Your task to perform on an android device: uninstall "HBO Max: Stream TV & Movies" Image 0: 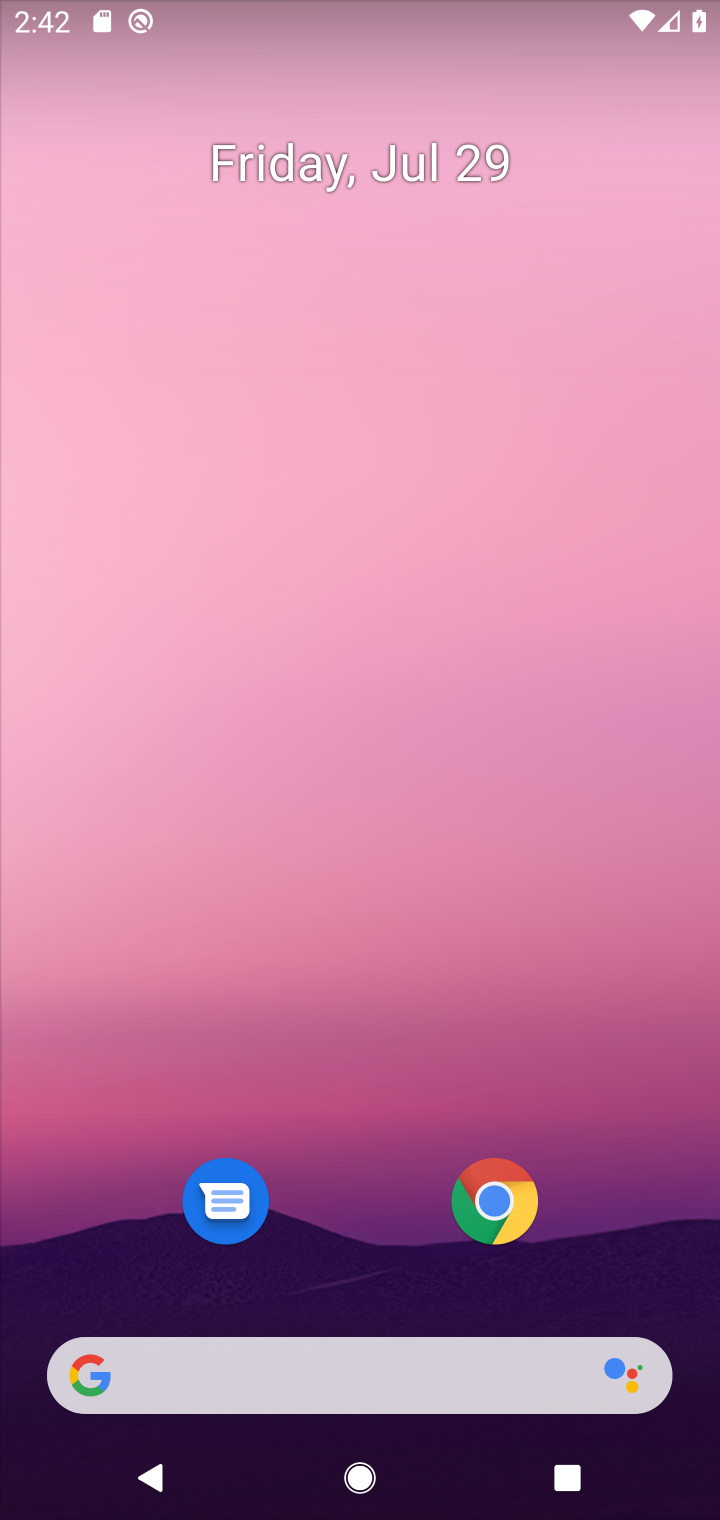
Step 0: press home button
Your task to perform on an android device: uninstall "HBO Max: Stream TV & Movies" Image 1: 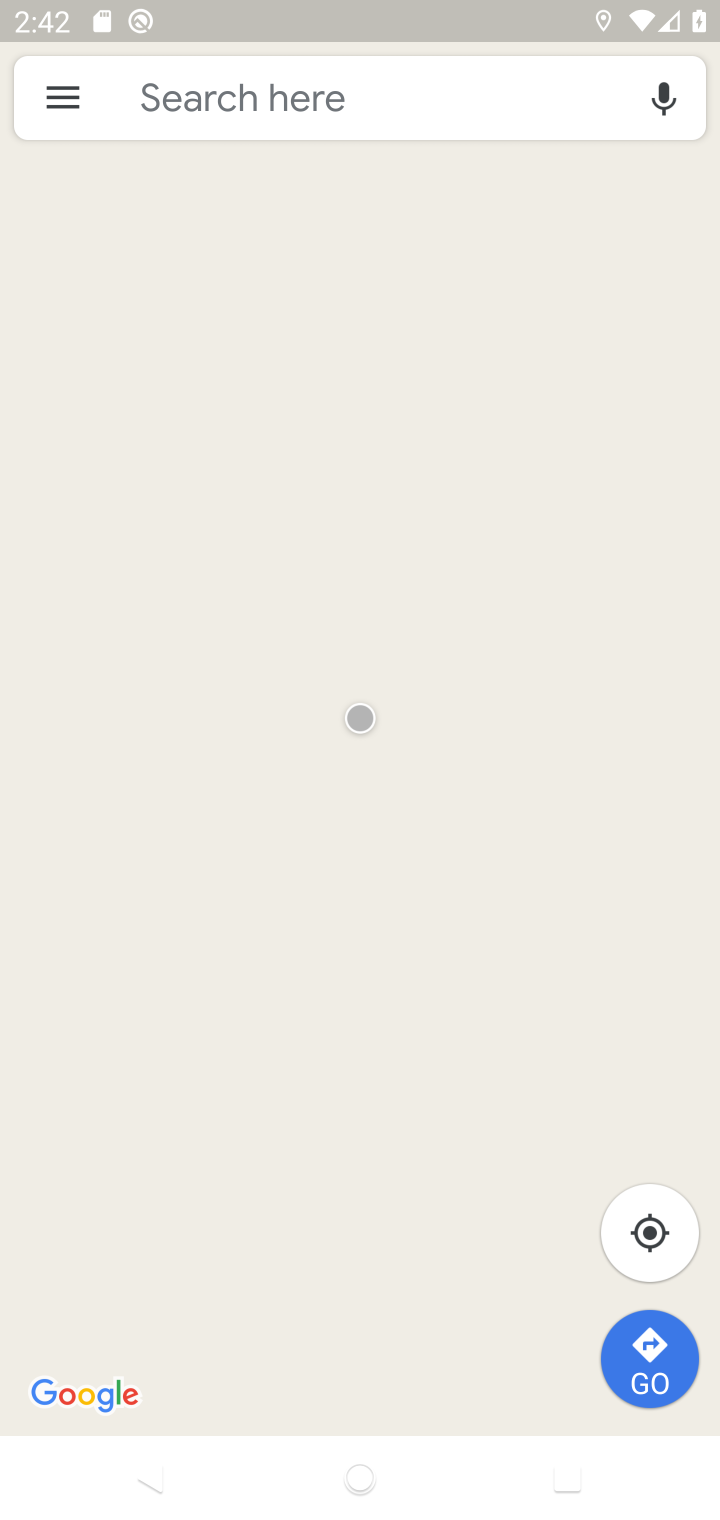
Step 1: press home button
Your task to perform on an android device: uninstall "HBO Max: Stream TV & Movies" Image 2: 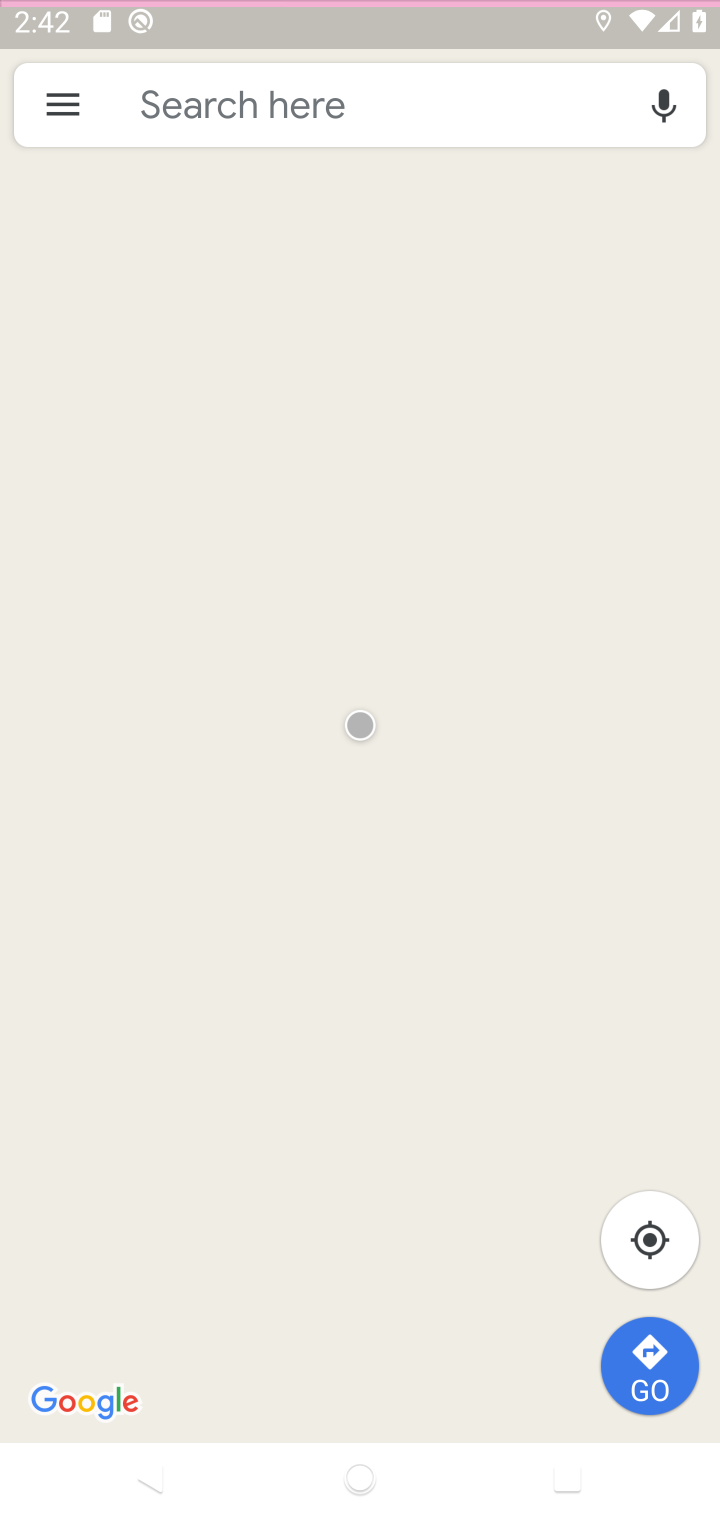
Step 2: click (615, 420)
Your task to perform on an android device: uninstall "HBO Max: Stream TV & Movies" Image 3: 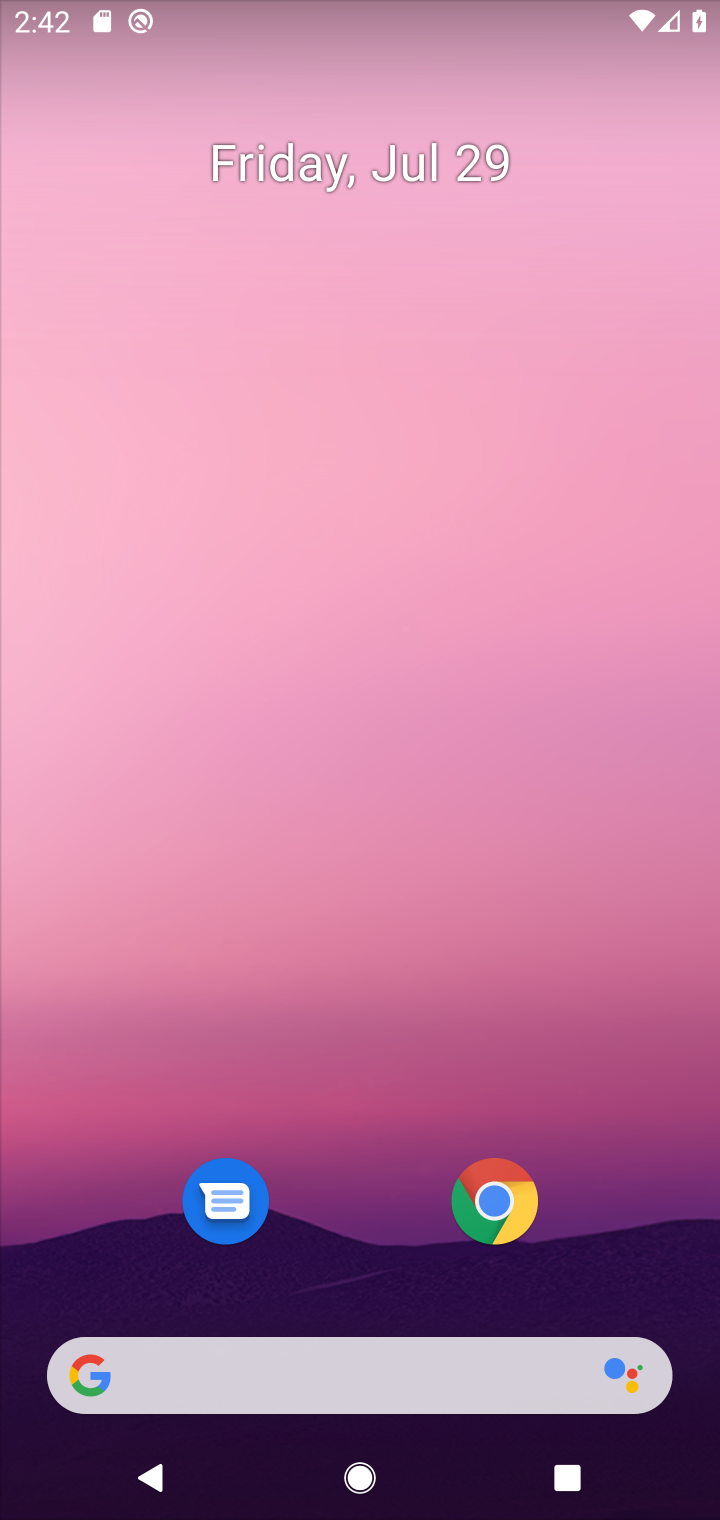
Step 3: press home button
Your task to perform on an android device: uninstall "HBO Max: Stream TV & Movies" Image 4: 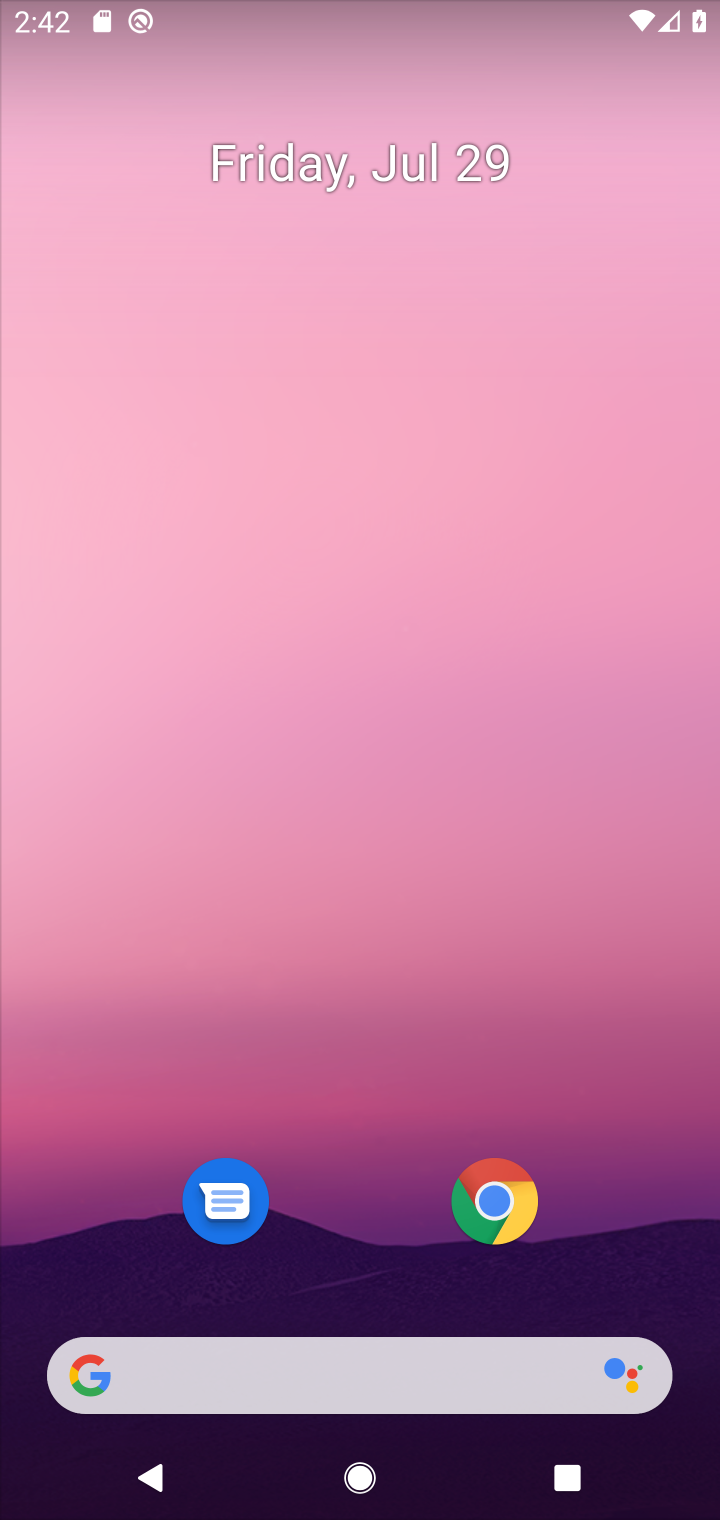
Step 4: drag from (682, 1195) to (611, 10)
Your task to perform on an android device: uninstall "HBO Max: Stream TV & Movies" Image 5: 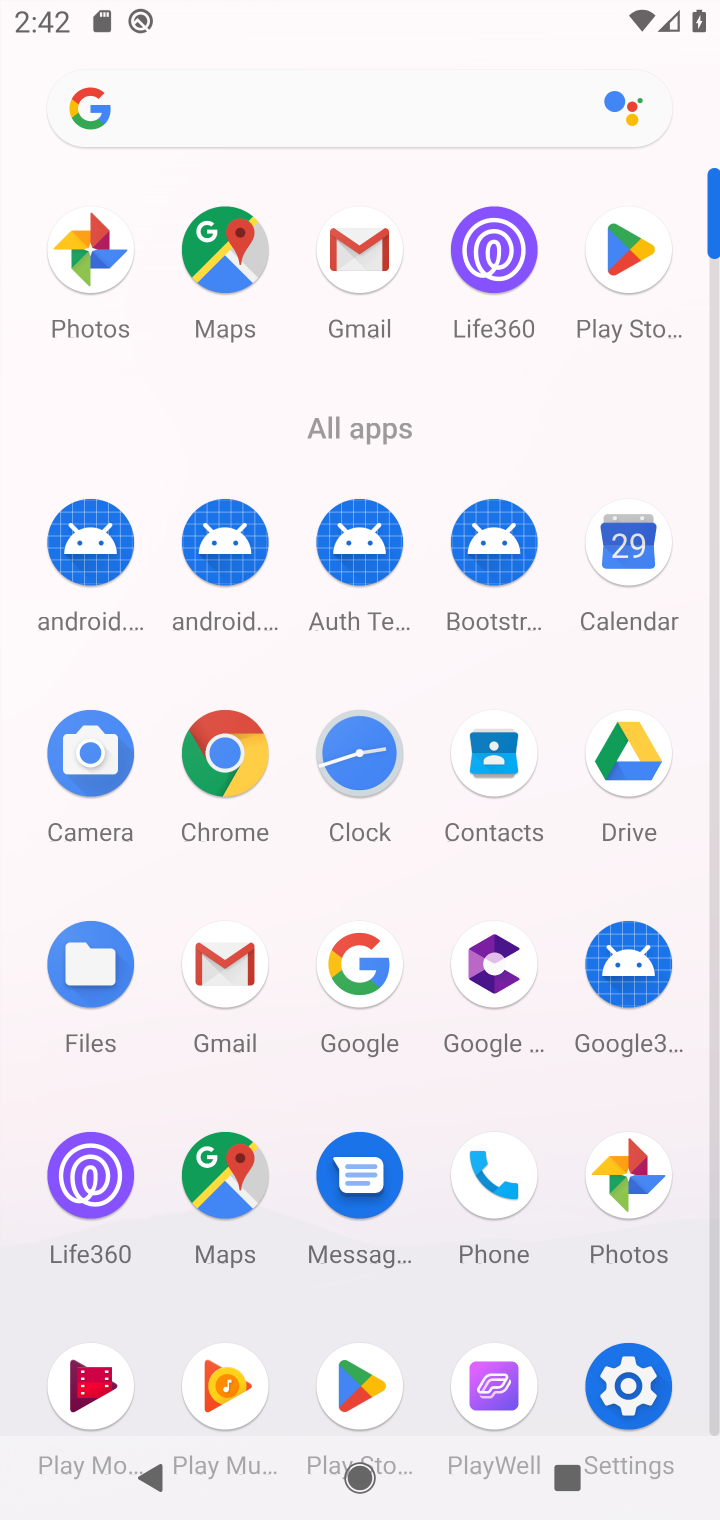
Step 5: click (662, 247)
Your task to perform on an android device: uninstall "HBO Max: Stream TV & Movies" Image 6: 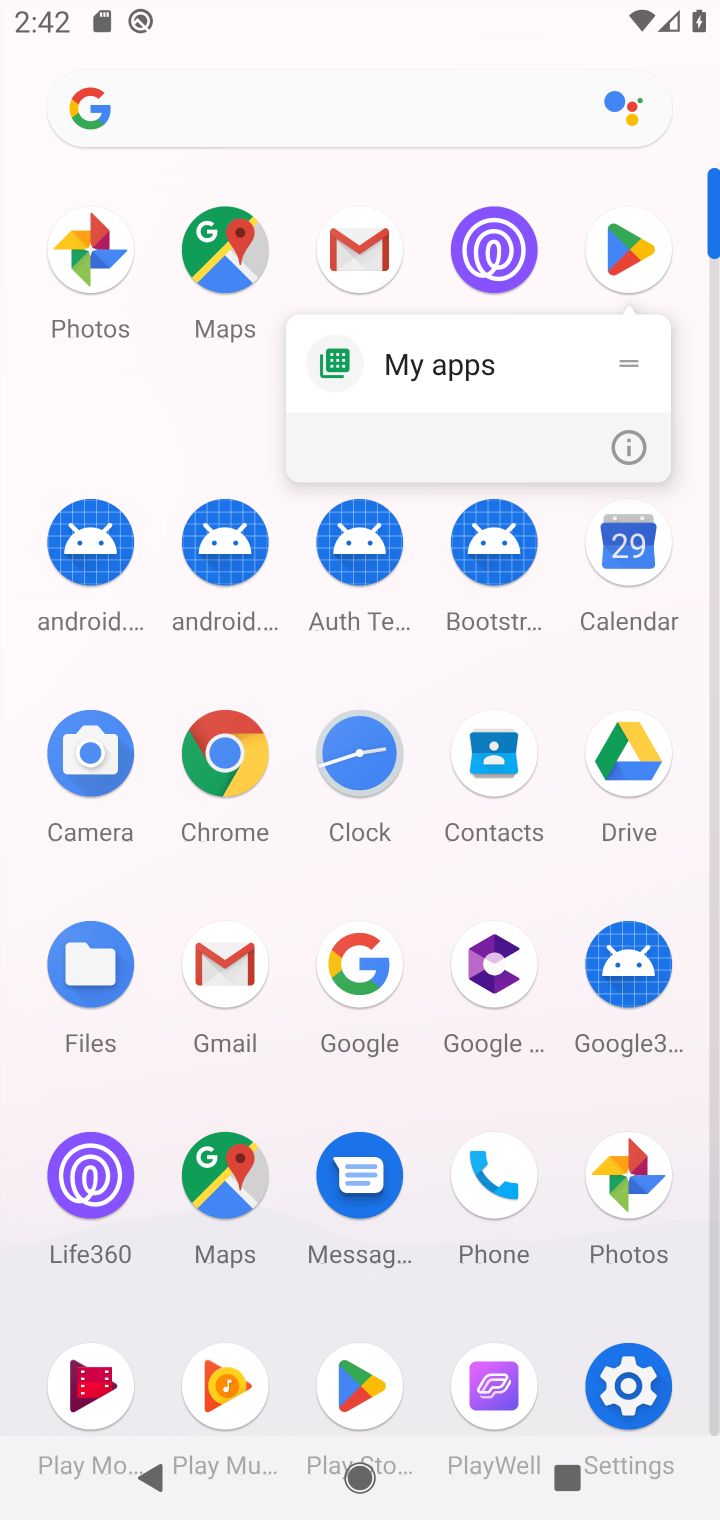
Step 6: click (630, 256)
Your task to perform on an android device: uninstall "HBO Max: Stream TV & Movies" Image 7: 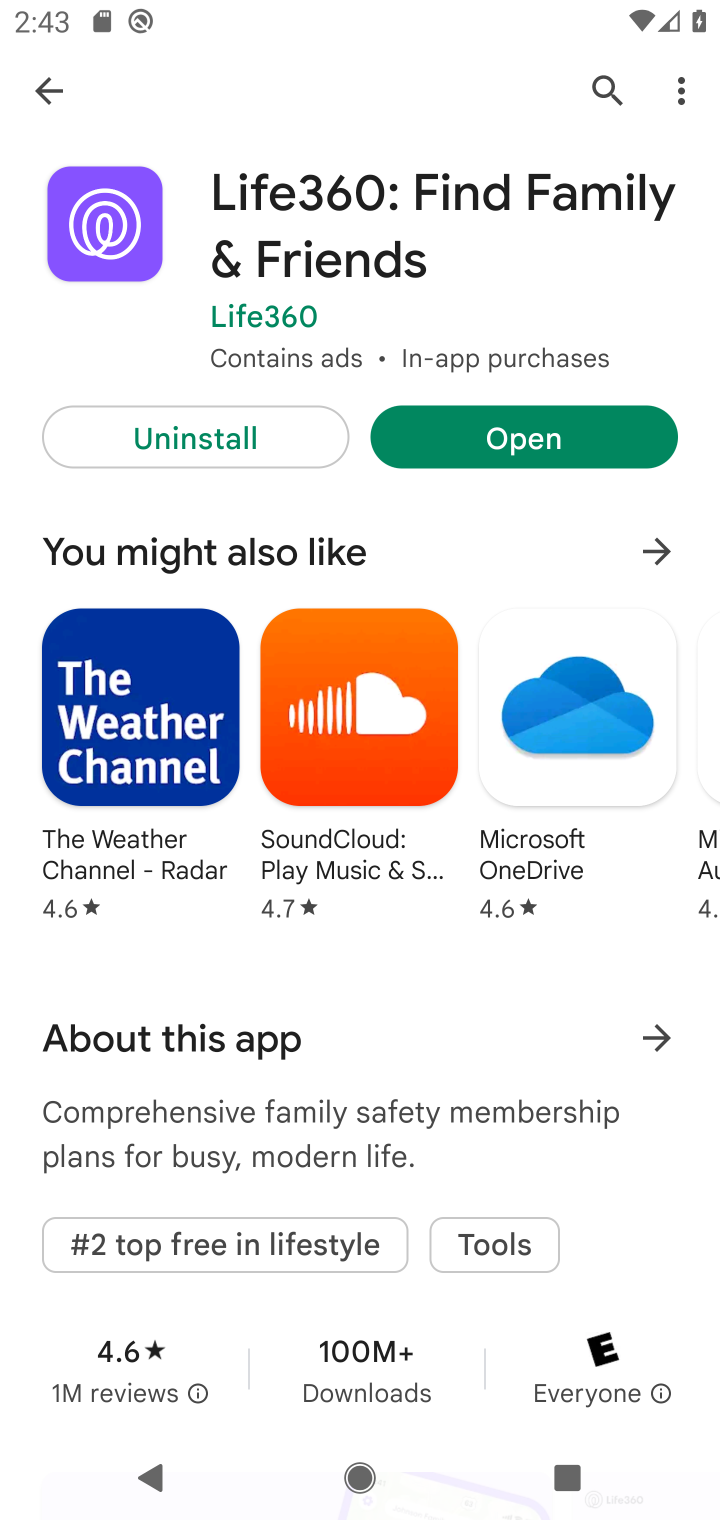
Step 7: click (600, 93)
Your task to perform on an android device: uninstall "HBO Max: Stream TV & Movies" Image 8: 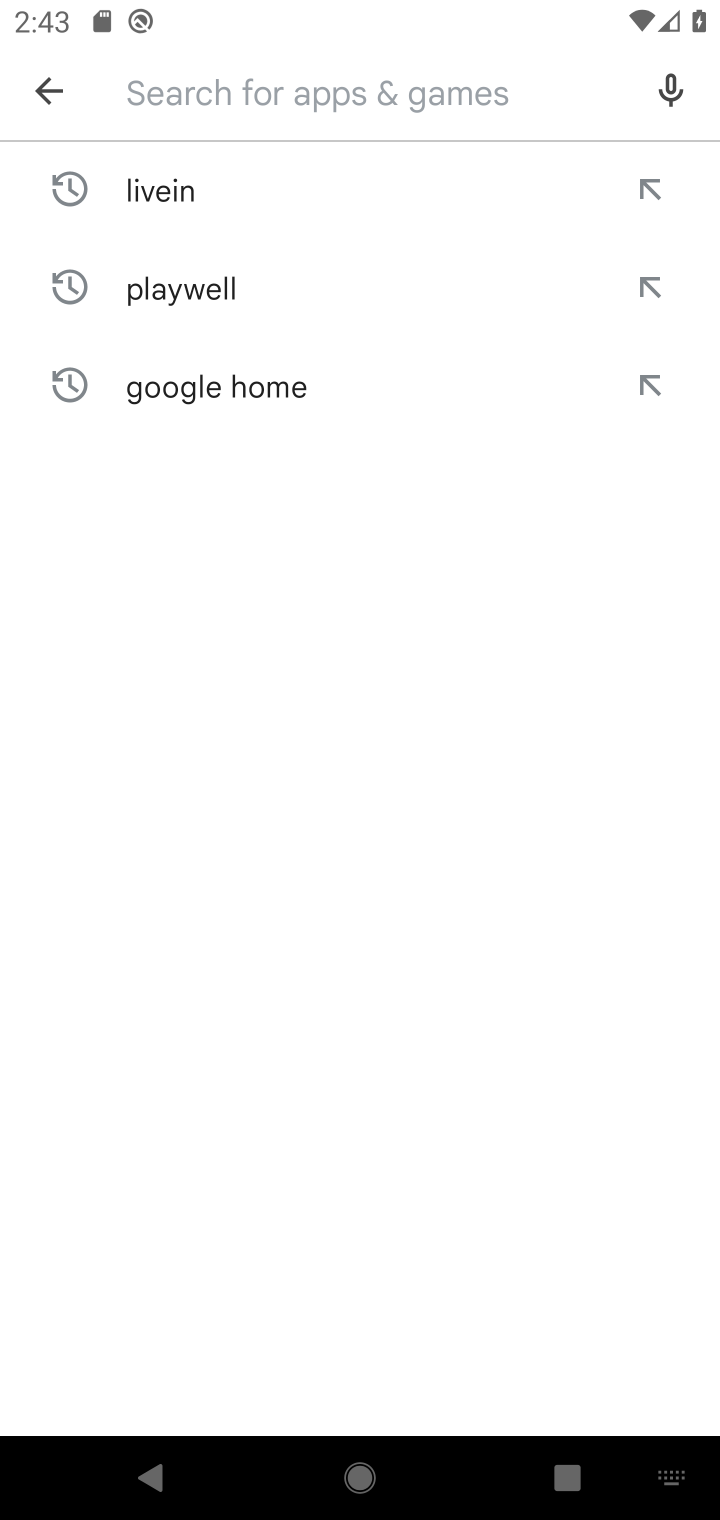
Step 8: click (398, 79)
Your task to perform on an android device: uninstall "HBO Max: Stream TV & Movies" Image 9: 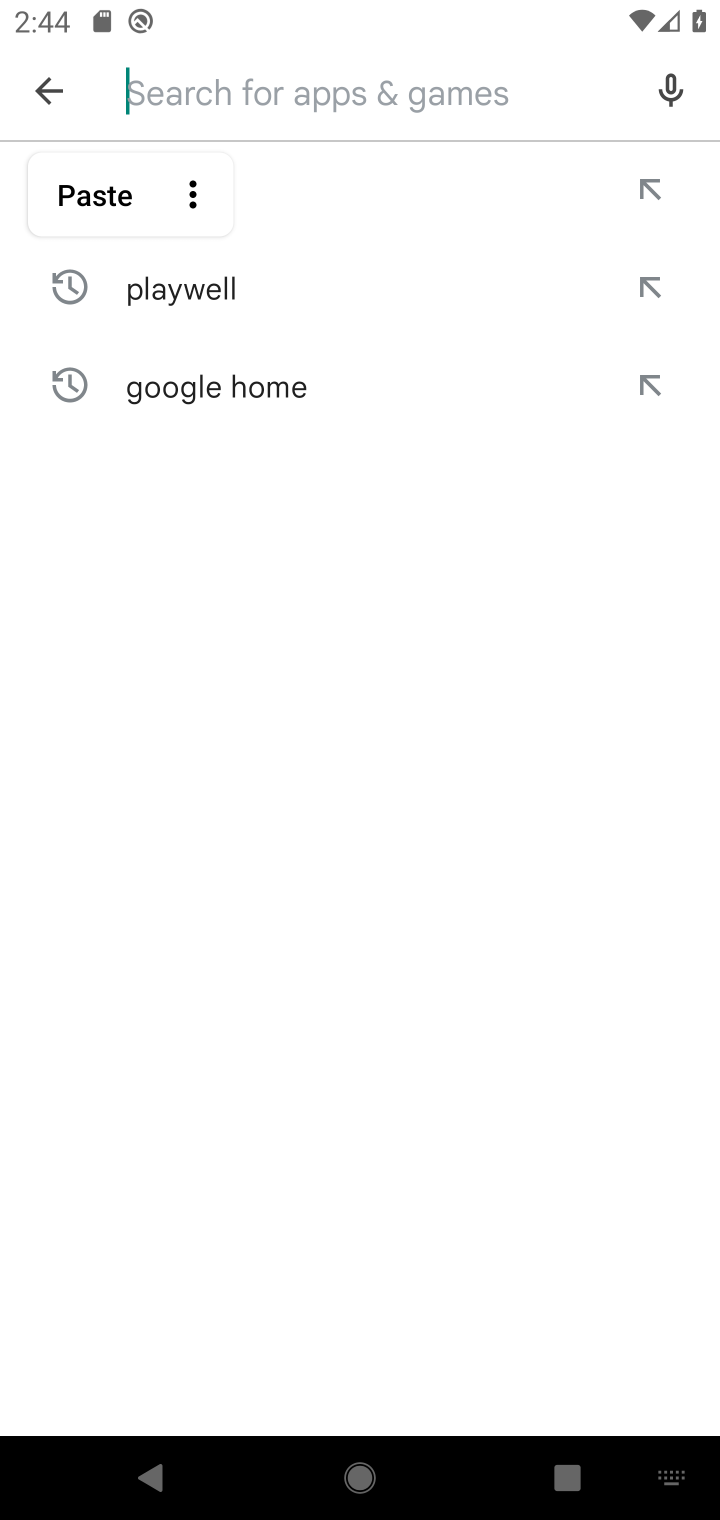
Step 9: type "HBO Max Stream TV & Movies"
Your task to perform on an android device: uninstall "HBO Max: Stream TV & Movies" Image 10: 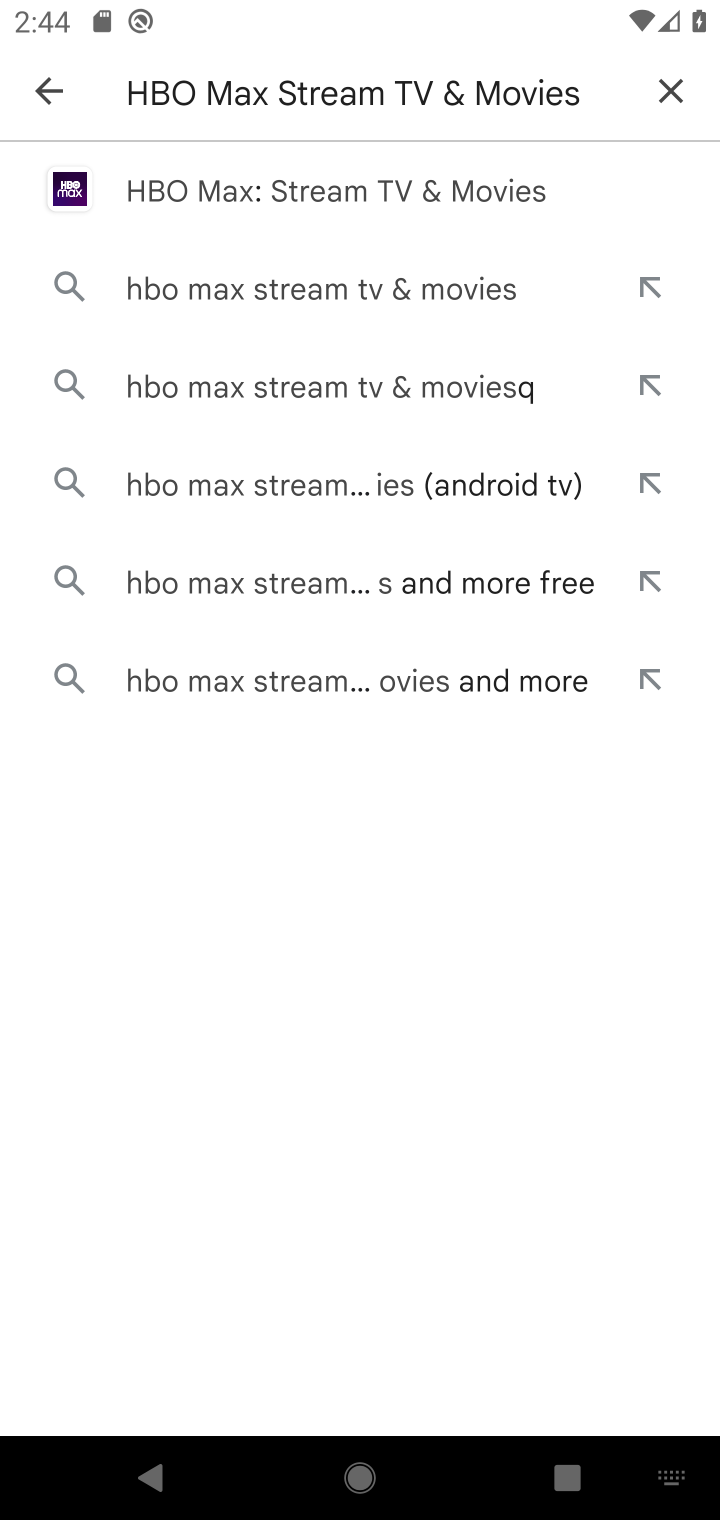
Step 10: click (214, 188)
Your task to perform on an android device: uninstall "HBO Max: Stream TV & Movies" Image 11: 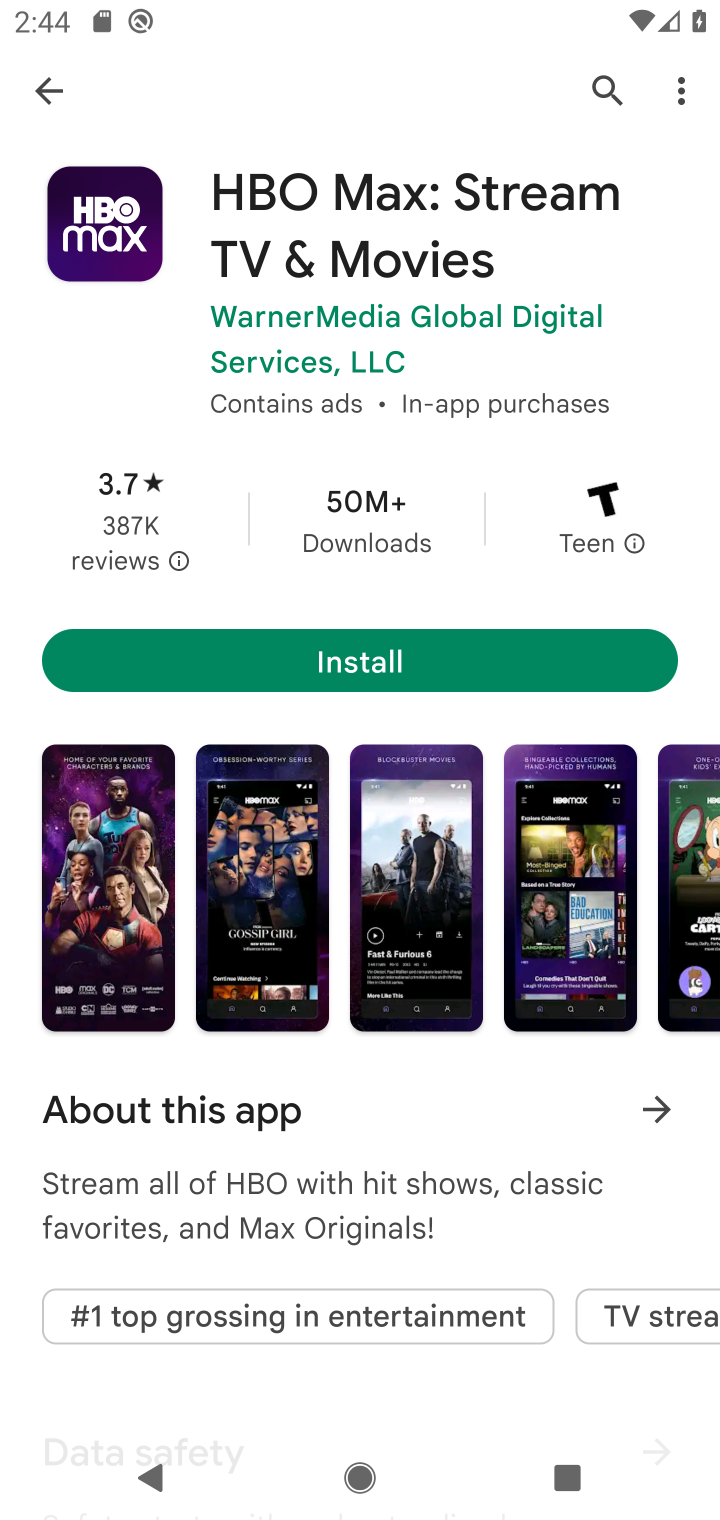
Step 11: click (653, 551)
Your task to perform on an android device: uninstall "HBO Max: Stream TV & Movies" Image 12: 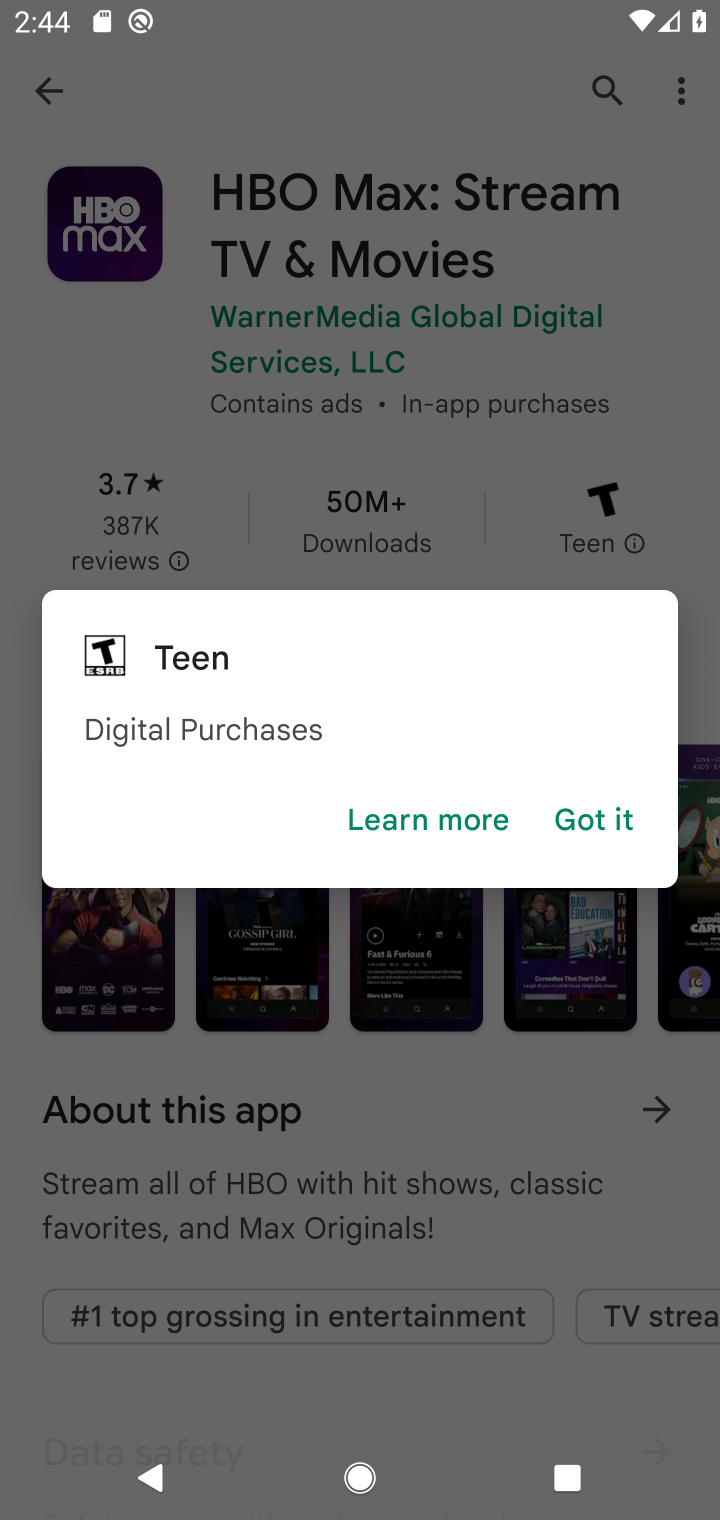
Step 12: click (577, 826)
Your task to perform on an android device: uninstall "HBO Max: Stream TV & Movies" Image 13: 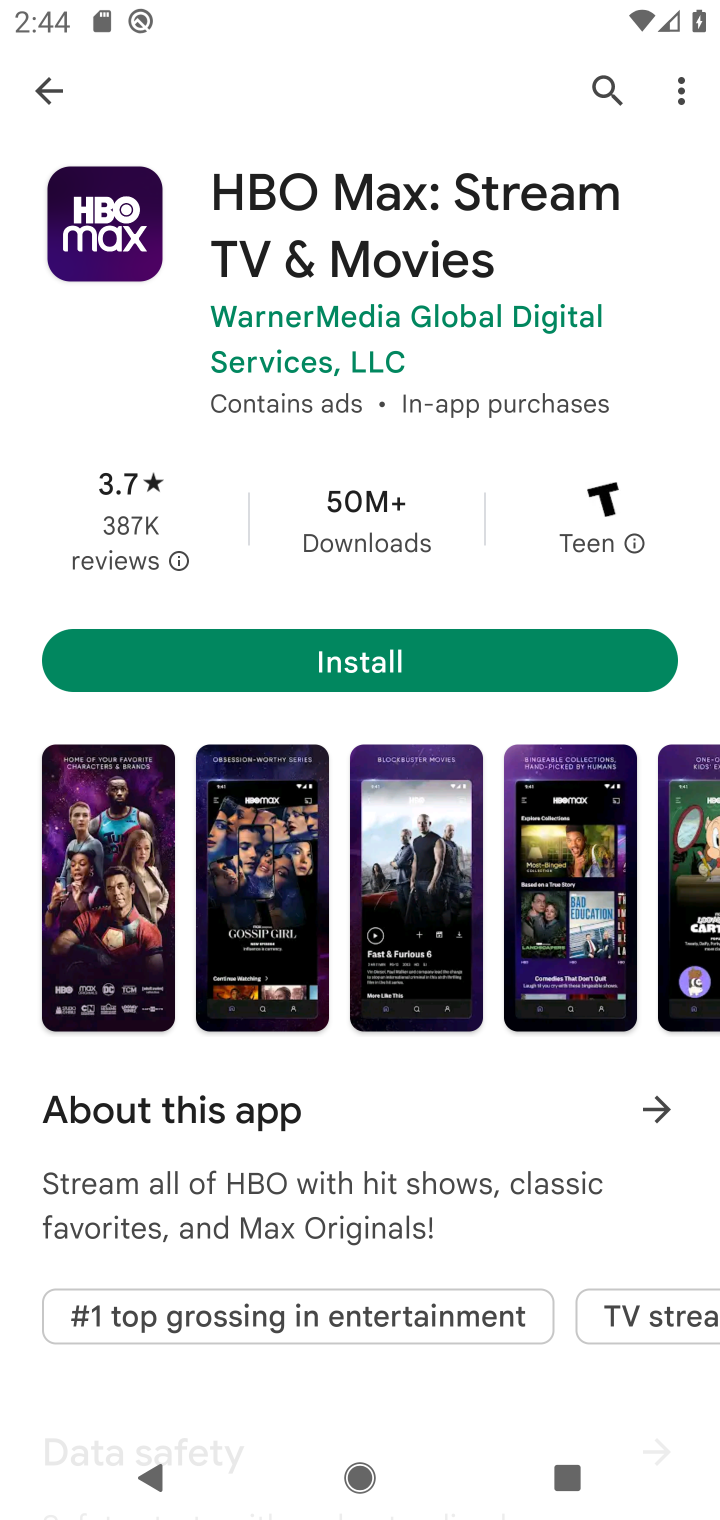
Step 13: click (89, 962)
Your task to perform on an android device: uninstall "HBO Max: Stream TV & Movies" Image 14: 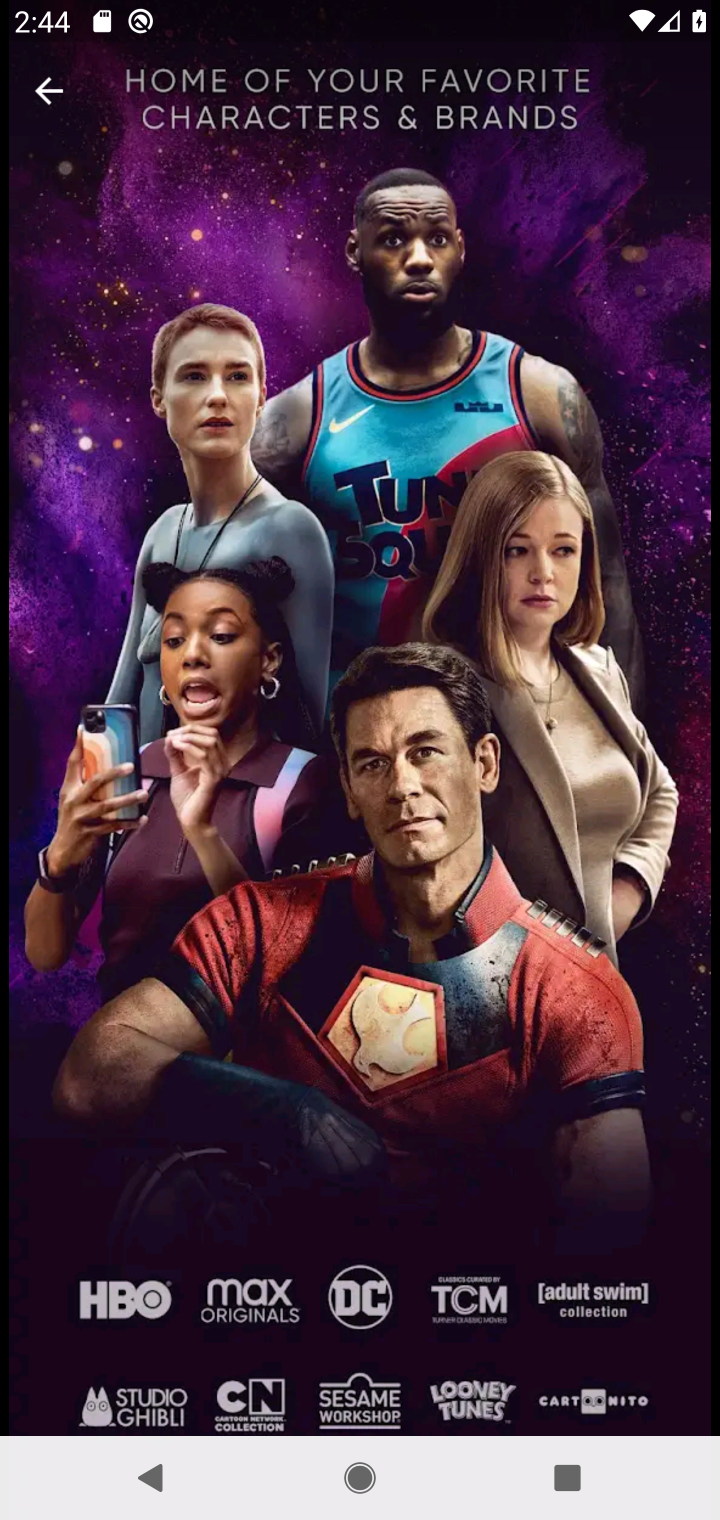
Step 14: drag from (517, 823) to (97, 907)
Your task to perform on an android device: uninstall "HBO Max: Stream TV & Movies" Image 15: 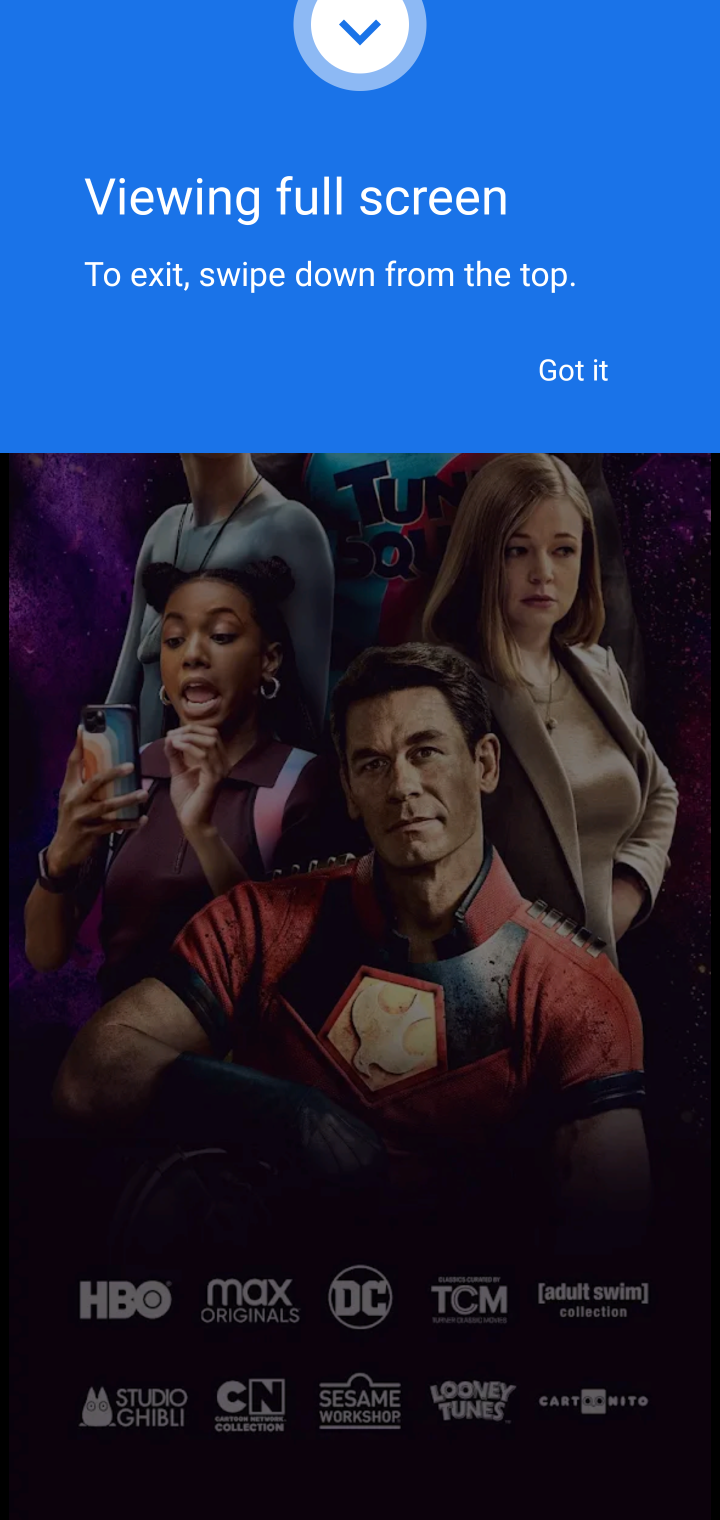
Step 15: press back button
Your task to perform on an android device: uninstall "HBO Max: Stream TV & Movies" Image 16: 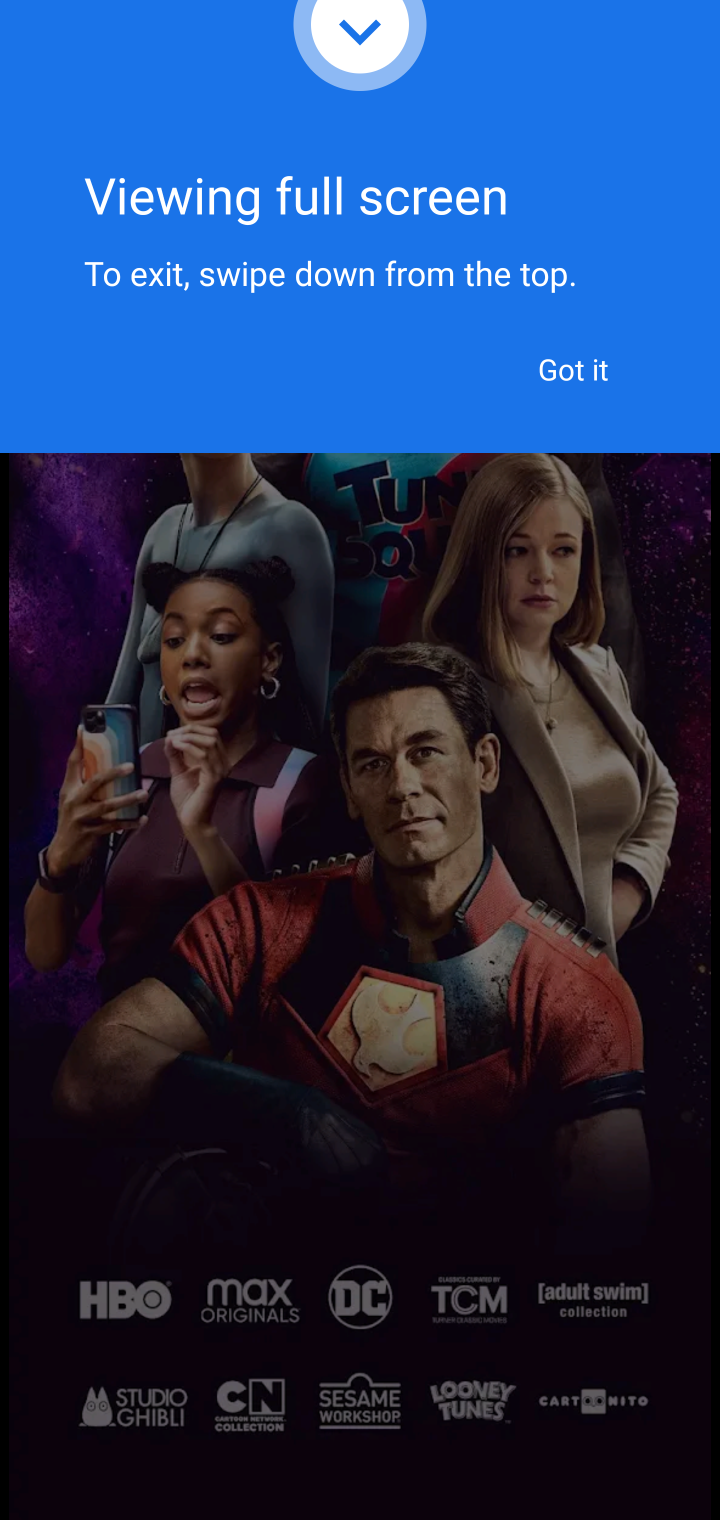
Step 16: click (570, 382)
Your task to perform on an android device: uninstall "HBO Max: Stream TV & Movies" Image 17: 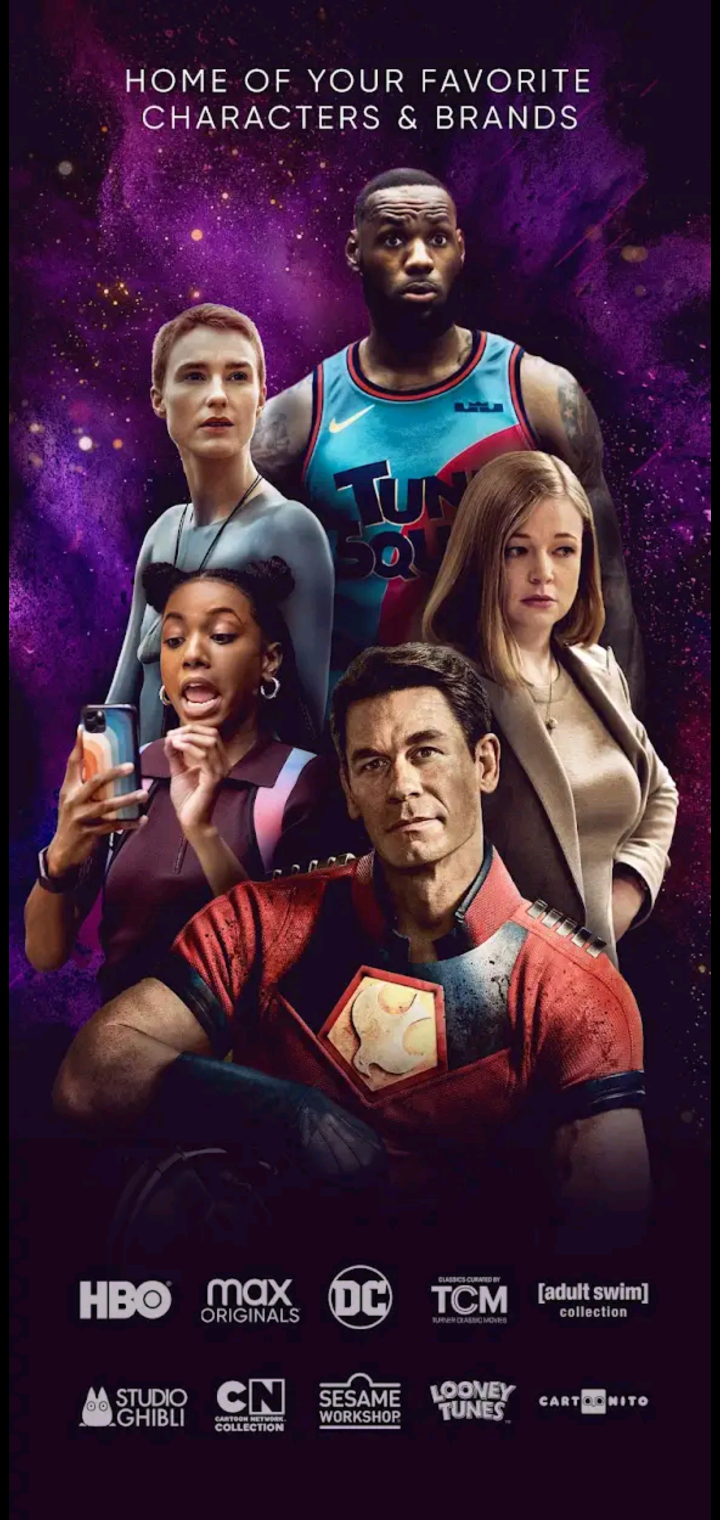
Step 17: task complete